Your task to perform on an android device: Check the news Image 0: 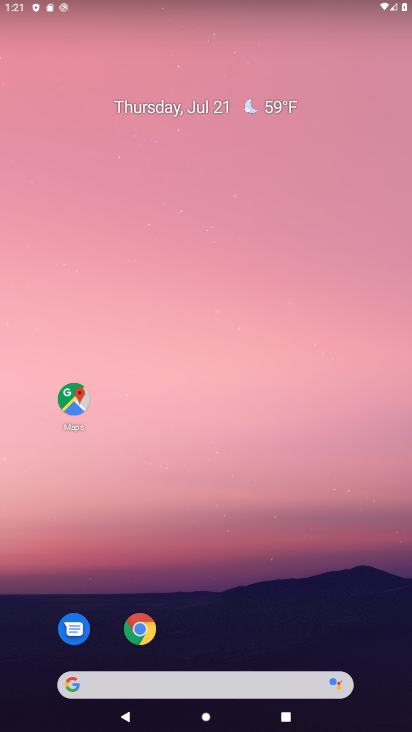
Step 0: click (218, 678)
Your task to perform on an android device: Check the news Image 1: 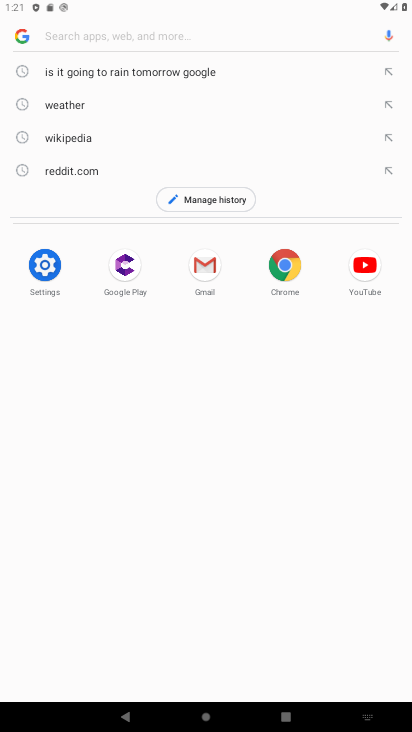
Step 1: type "news"
Your task to perform on an android device: Check the news Image 2: 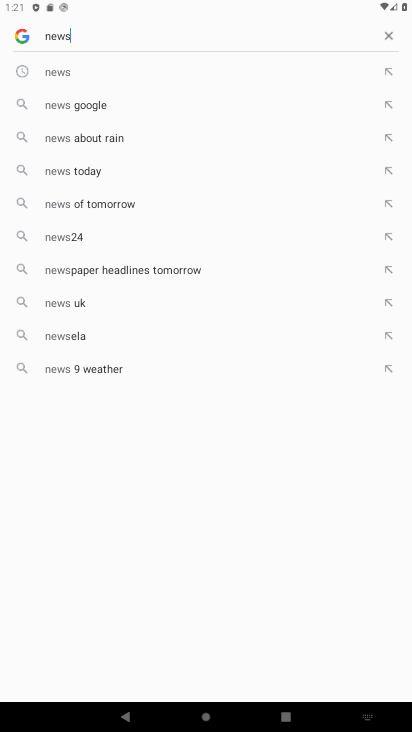
Step 2: click (86, 73)
Your task to perform on an android device: Check the news Image 3: 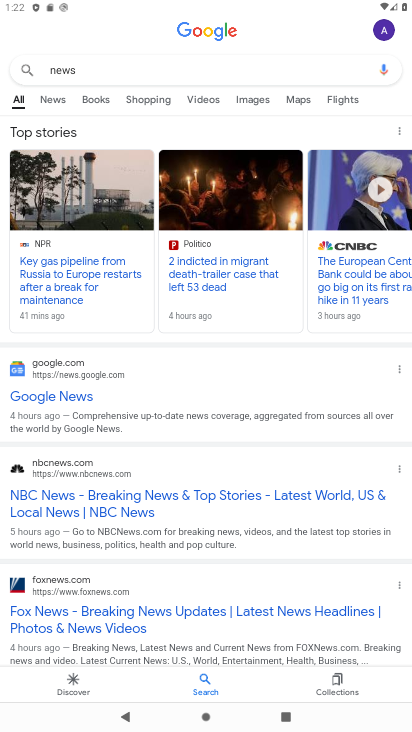
Step 3: click (56, 100)
Your task to perform on an android device: Check the news Image 4: 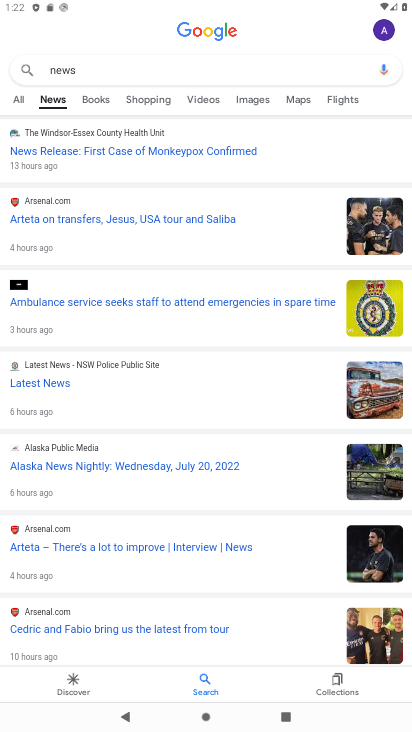
Step 4: task complete